Your task to perform on an android device: change the clock display to show seconds Image 0: 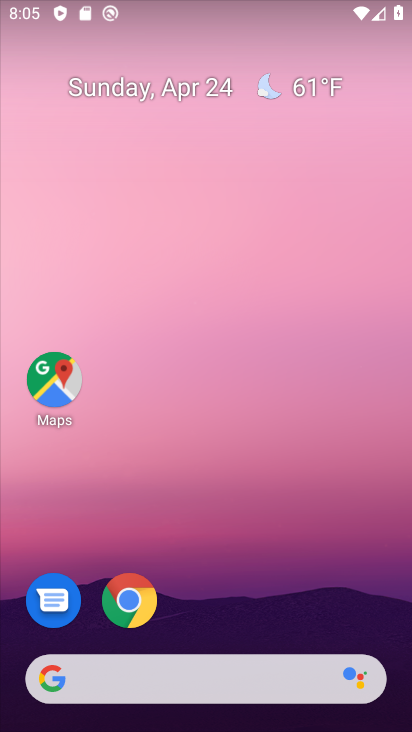
Step 0: drag from (223, 721) to (229, 59)
Your task to perform on an android device: change the clock display to show seconds Image 1: 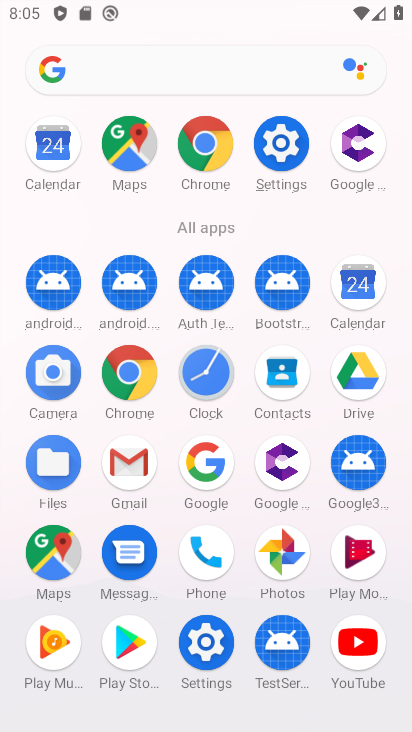
Step 1: click (203, 373)
Your task to perform on an android device: change the clock display to show seconds Image 2: 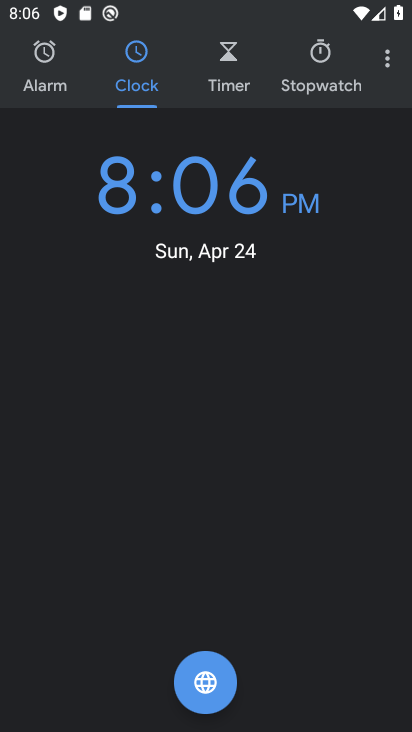
Step 2: click (388, 63)
Your task to perform on an android device: change the clock display to show seconds Image 3: 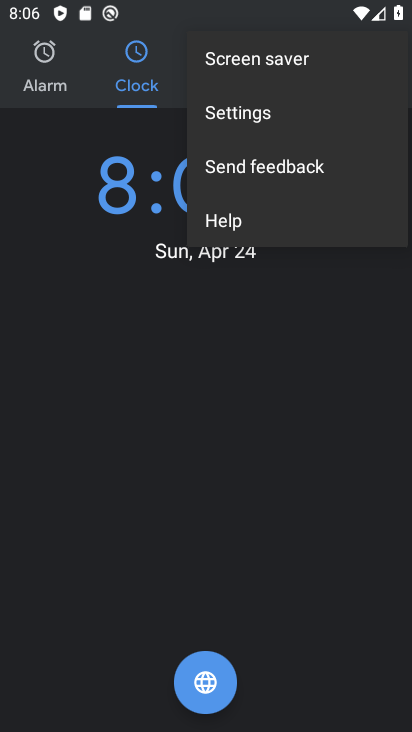
Step 3: click (263, 109)
Your task to perform on an android device: change the clock display to show seconds Image 4: 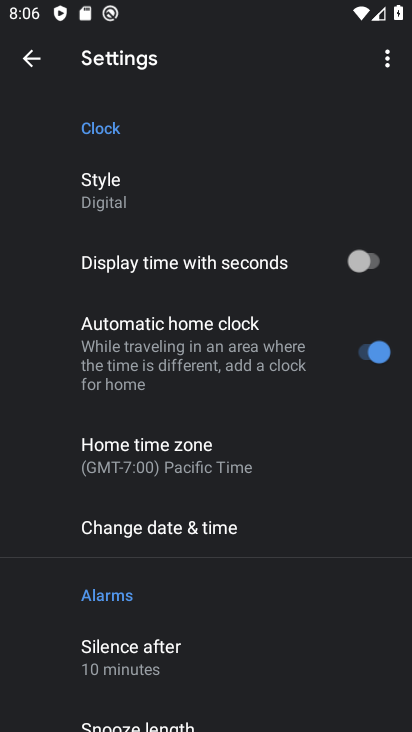
Step 4: click (374, 259)
Your task to perform on an android device: change the clock display to show seconds Image 5: 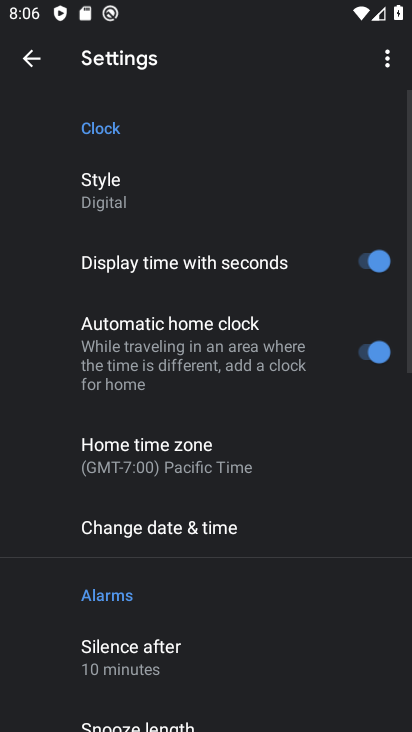
Step 5: task complete